Your task to perform on an android device: Open the calendar app, open the side menu, and click the "Day" option Image 0: 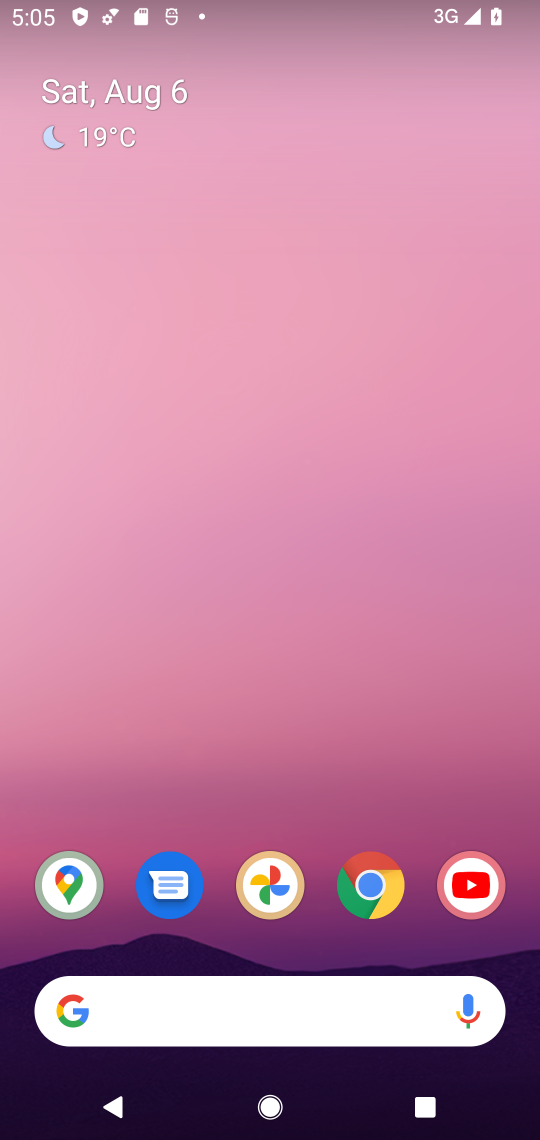
Step 0: drag from (439, 928) to (209, 57)
Your task to perform on an android device: Open the calendar app, open the side menu, and click the "Day" option Image 1: 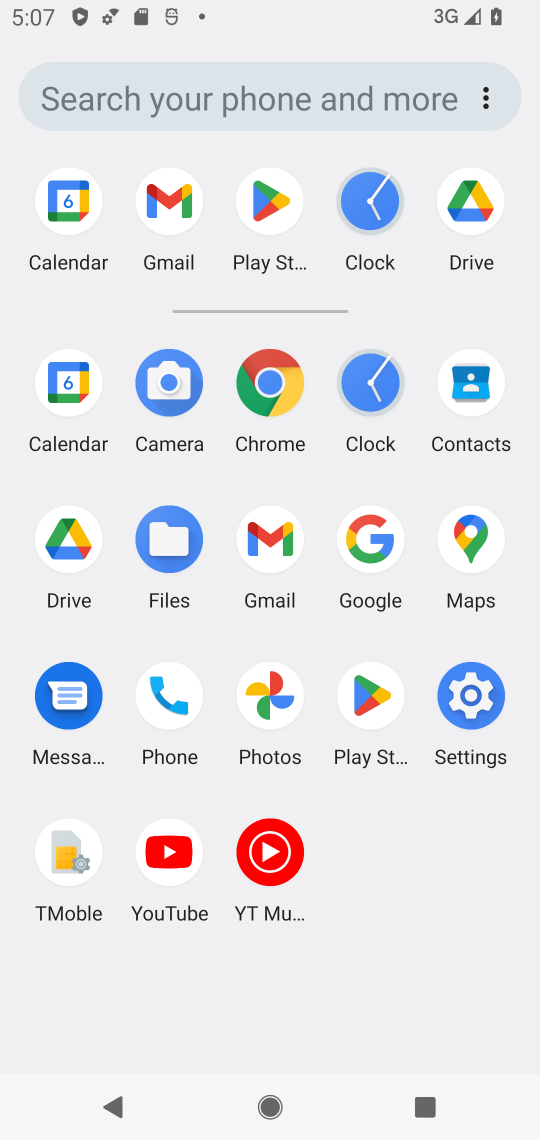
Step 1: click (71, 381)
Your task to perform on an android device: Open the calendar app, open the side menu, and click the "Day" option Image 2: 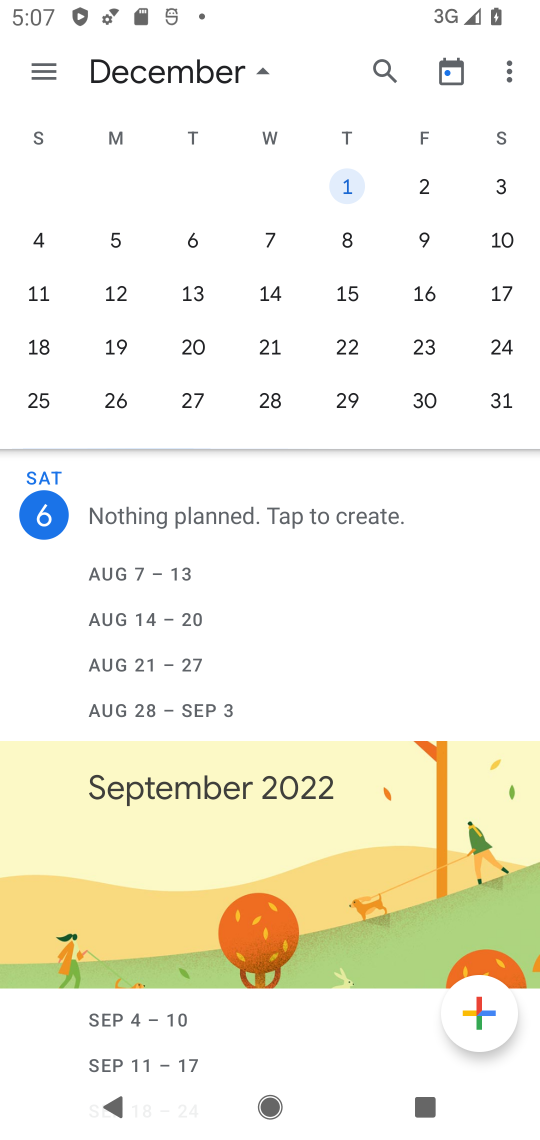
Step 2: click (38, 72)
Your task to perform on an android device: Open the calendar app, open the side menu, and click the "Day" option Image 3: 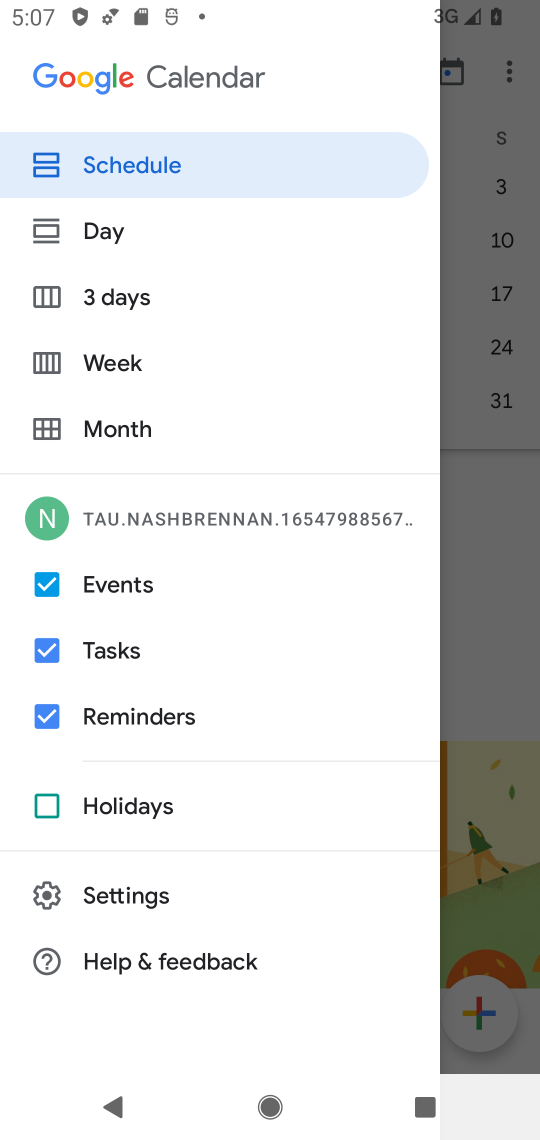
Step 3: click (115, 230)
Your task to perform on an android device: Open the calendar app, open the side menu, and click the "Day" option Image 4: 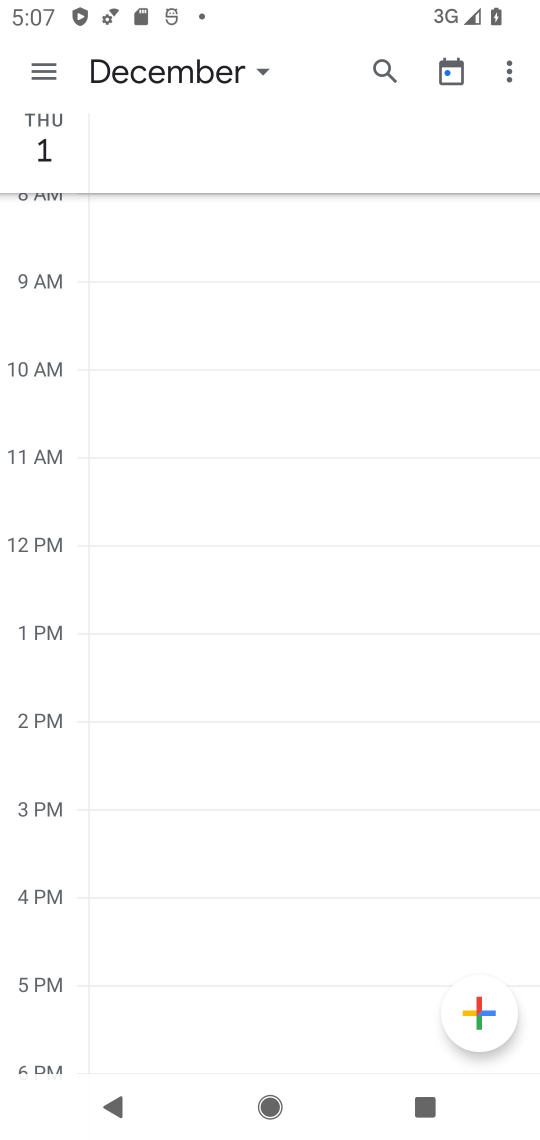
Step 4: task complete